Your task to perform on an android device: open sync settings in chrome Image 0: 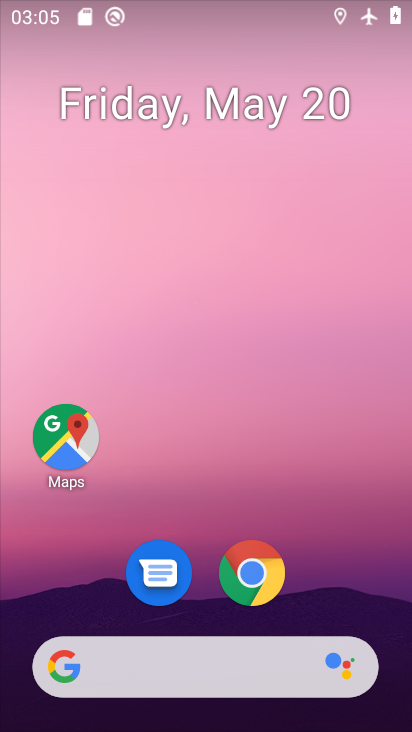
Step 0: click (249, 547)
Your task to perform on an android device: open sync settings in chrome Image 1: 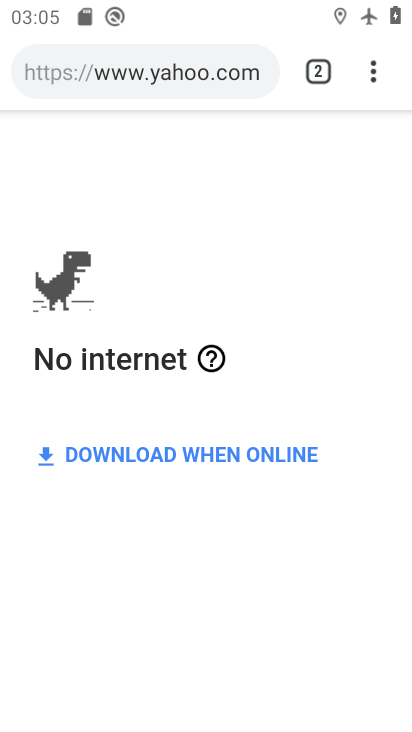
Step 1: click (369, 82)
Your task to perform on an android device: open sync settings in chrome Image 2: 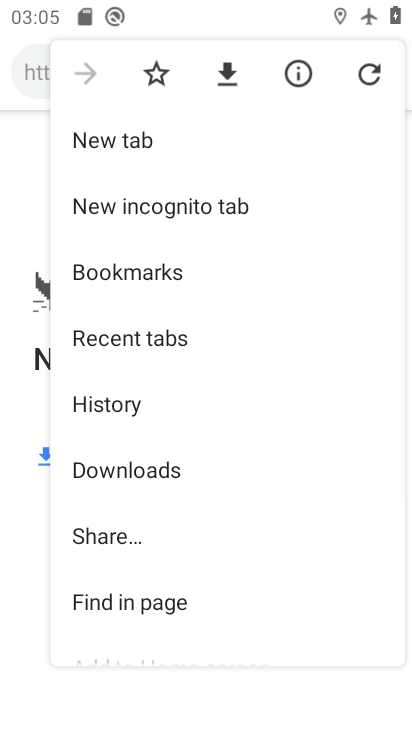
Step 2: drag from (172, 532) to (206, 306)
Your task to perform on an android device: open sync settings in chrome Image 3: 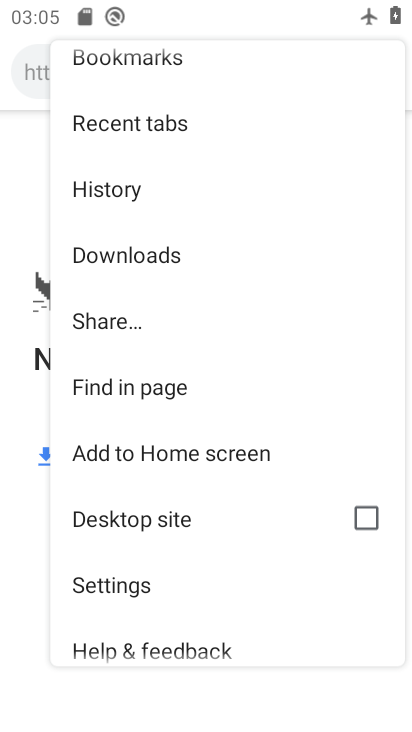
Step 3: click (168, 583)
Your task to perform on an android device: open sync settings in chrome Image 4: 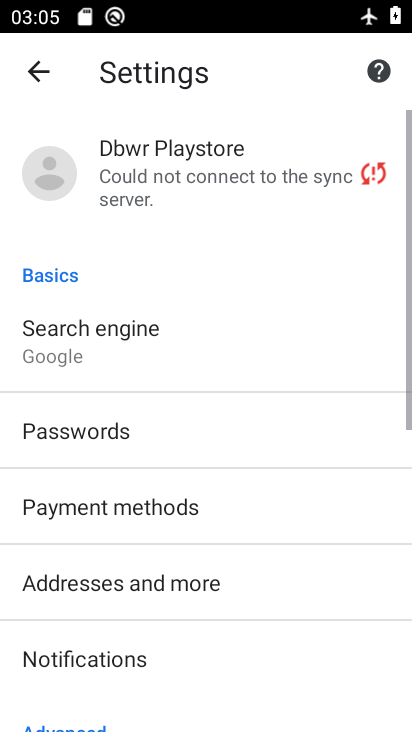
Step 4: drag from (171, 538) to (208, 326)
Your task to perform on an android device: open sync settings in chrome Image 5: 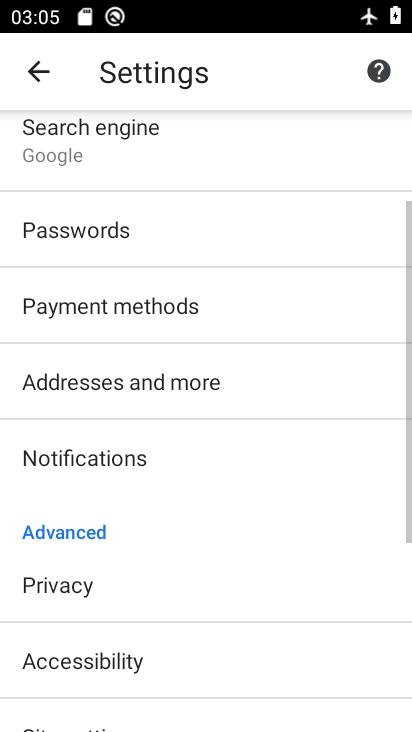
Step 5: drag from (188, 525) to (213, 363)
Your task to perform on an android device: open sync settings in chrome Image 6: 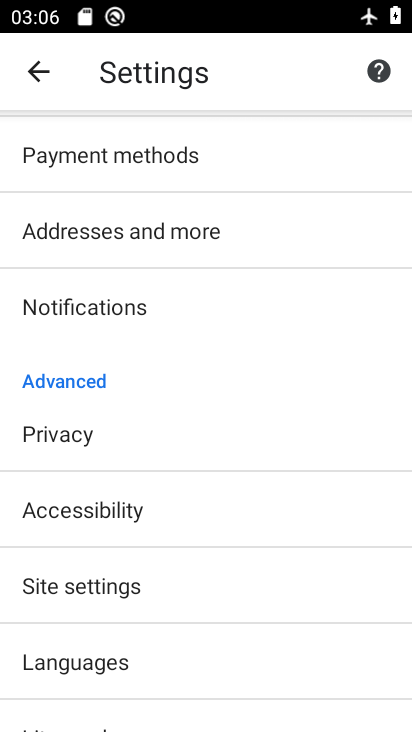
Step 6: drag from (149, 320) to (164, 573)
Your task to perform on an android device: open sync settings in chrome Image 7: 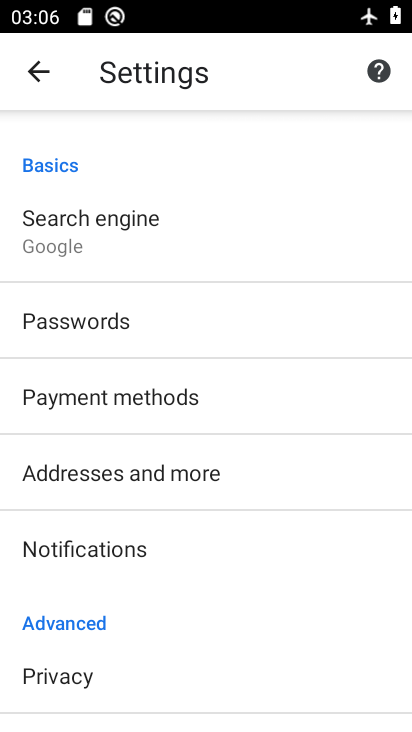
Step 7: drag from (133, 198) to (138, 528)
Your task to perform on an android device: open sync settings in chrome Image 8: 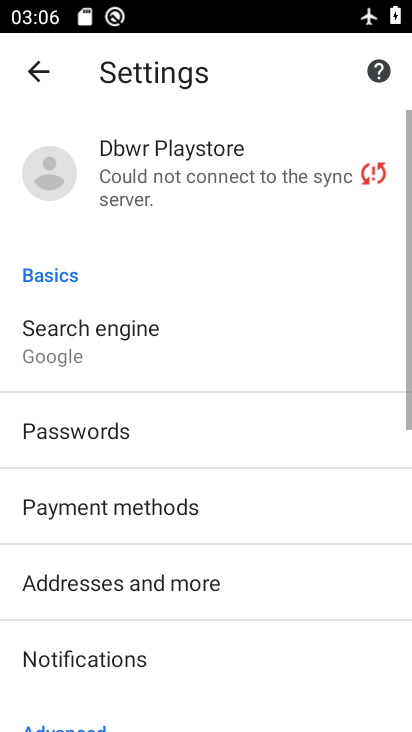
Step 8: click (148, 202)
Your task to perform on an android device: open sync settings in chrome Image 9: 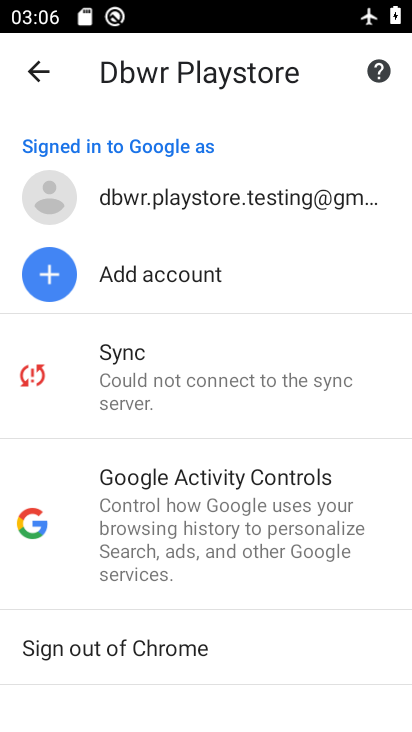
Step 9: click (149, 354)
Your task to perform on an android device: open sync settings in chrome Image 10: 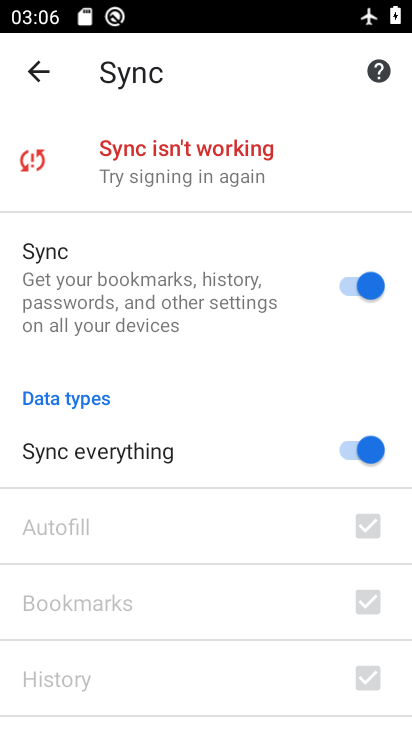
Step 10: task complete